Your task to perform on an android device: Clear the shopping cart on walmart. Image 0: 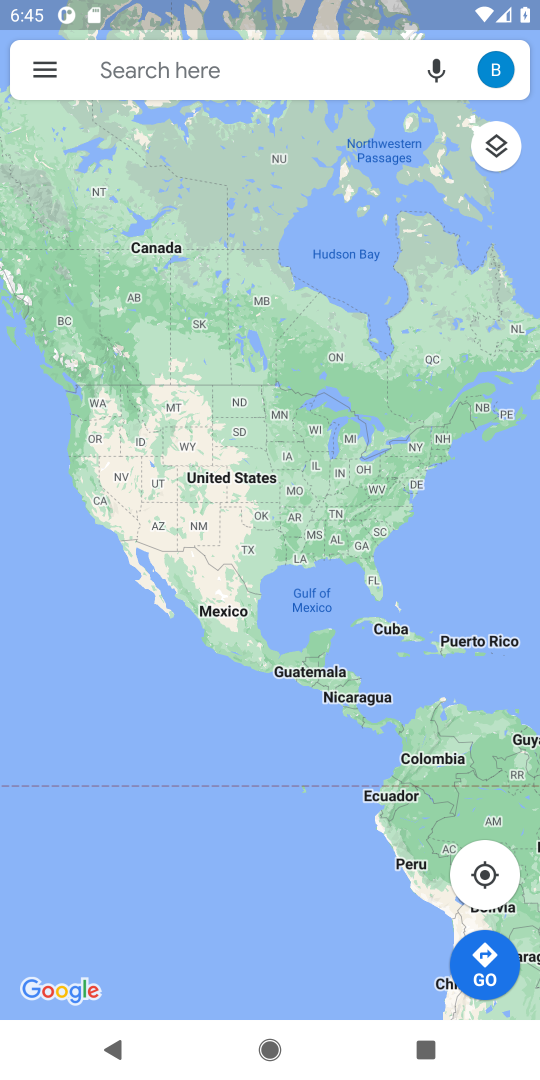
Step 0: press home button
Your task to perform on an android device: Clear the shopping cart on walmart. Image 1: 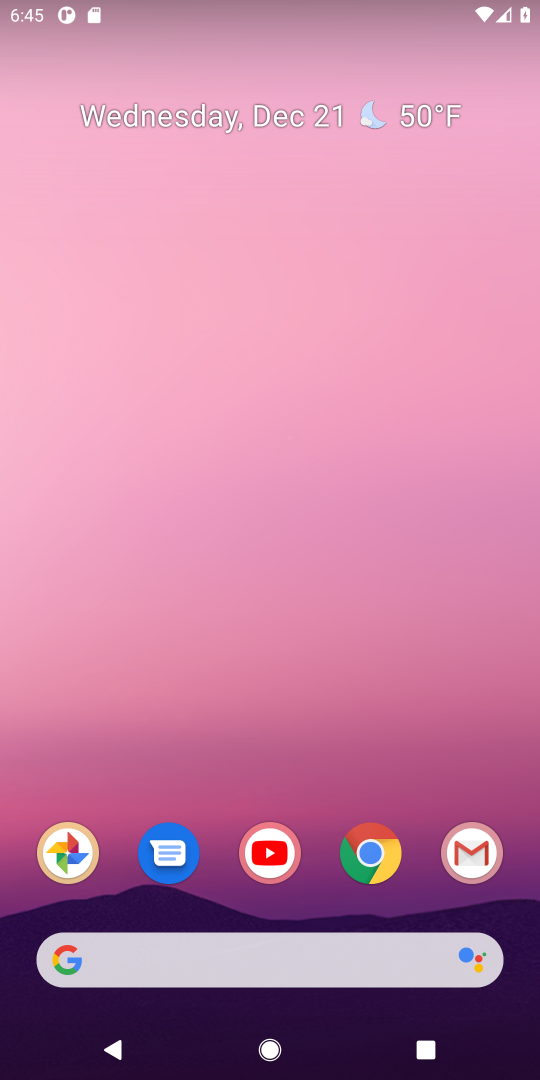
Step 1: click (359, 860)
Your task to perform on an android device: Clear the shopping cart on walmart. Image 2: 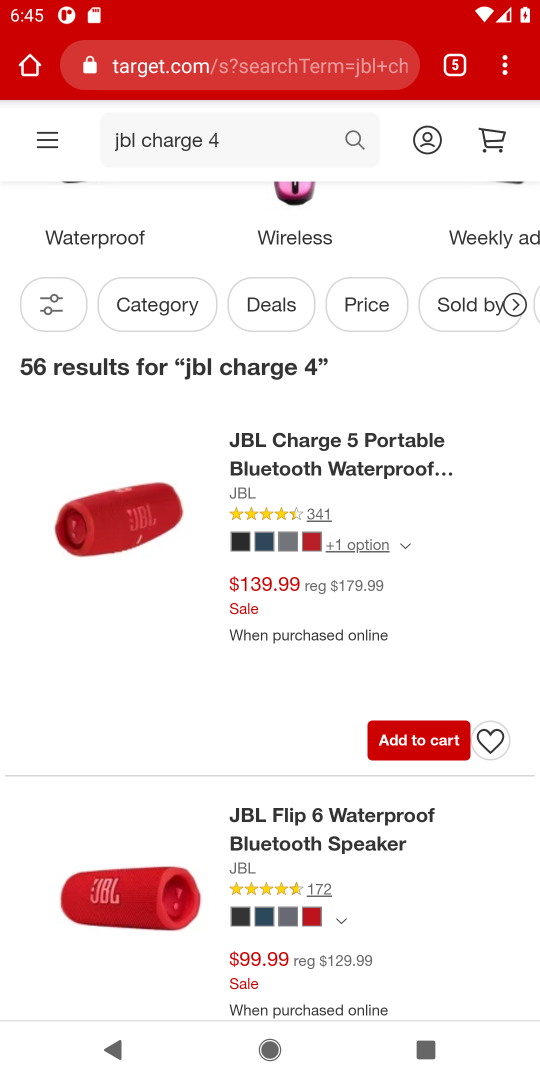
Step 2: click (451, 54)
Your task to perform on an android device: Clear the shopping cart on walmart. Image 3: 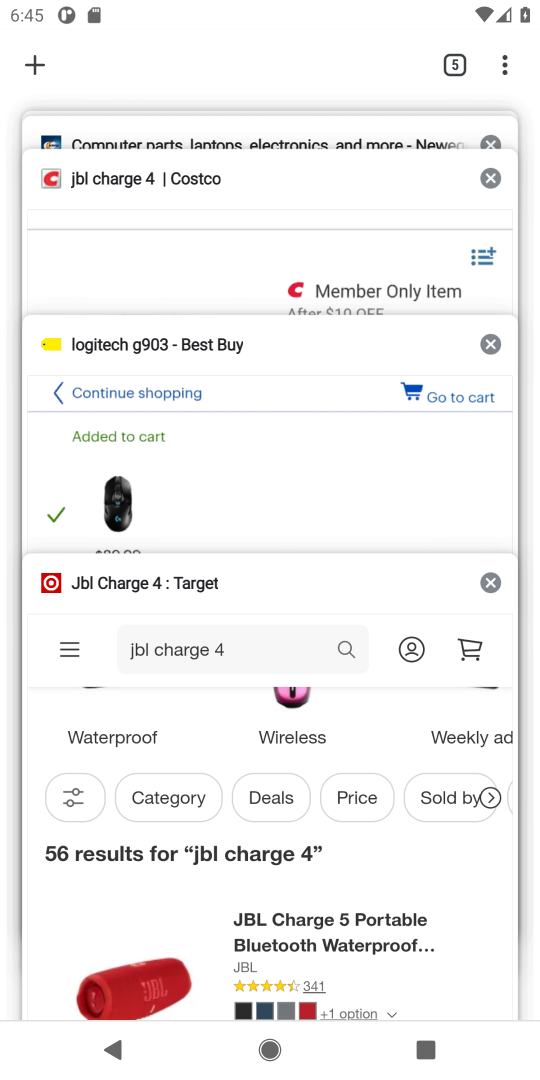
Step 3: click (33, 69)
Your task to perform on an android device: Clear the shopping cart on walmart. Image 4: 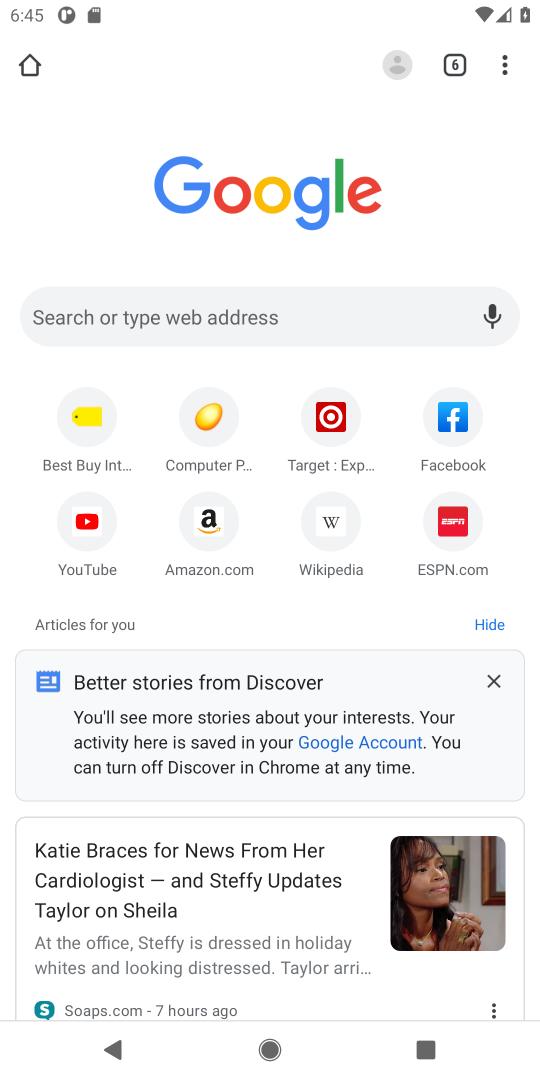
Step 4: click (220, 305)
Your task to perform on an android device: Clear the shopping cart on walmart. Image 5: 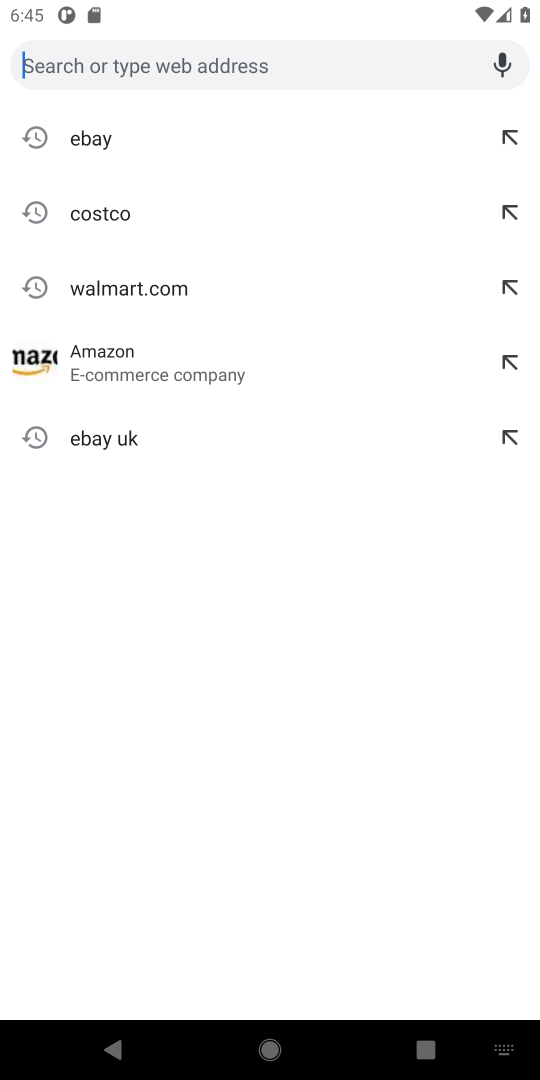
Step 5: click (128, 285)
Your task to perform on an android device: Clear the shopping cart on walmart. Image 6: 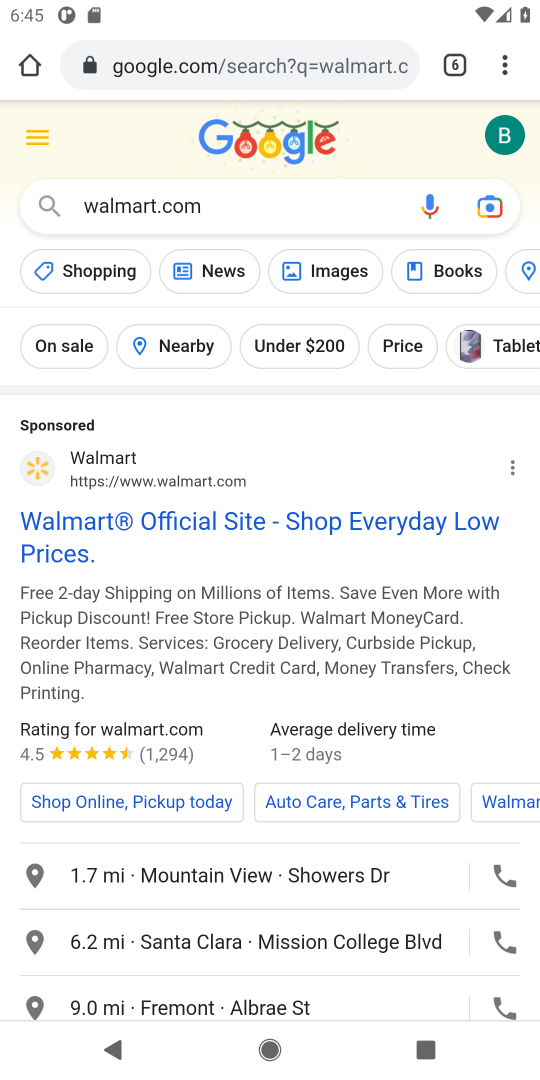
Step 6: click (219, 524)
Your task to perform on an android device: Clear the shopping cart on walmart. Image 7: 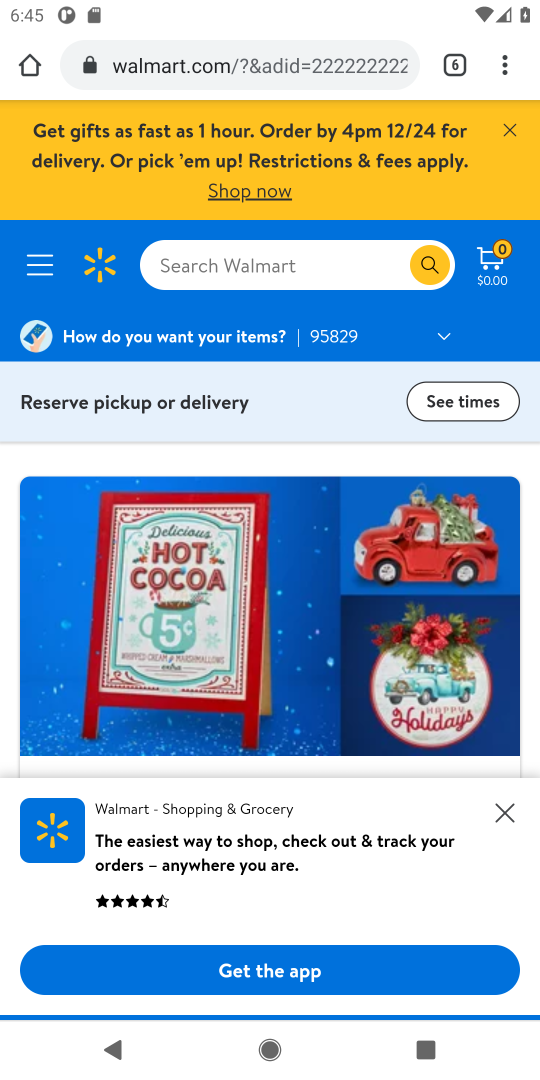
Step 7: click (509, 122)
Your task to perform on an android device: Clear the shopping cart on walmart. Image 8: 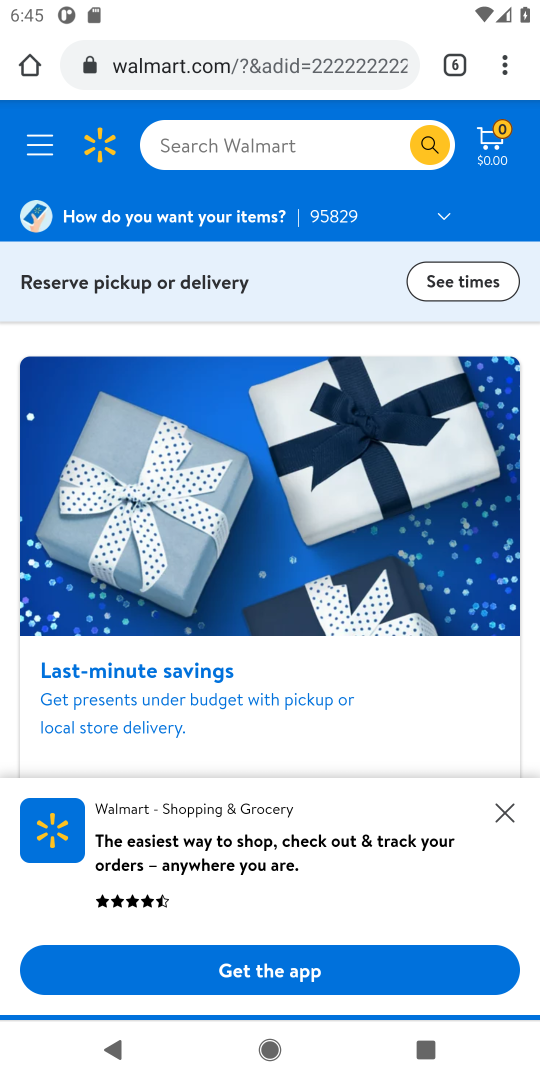
Step 8: click (499, 133)
Your task to perform on an android device: Clear the shopping cart on walmart. Image 9: 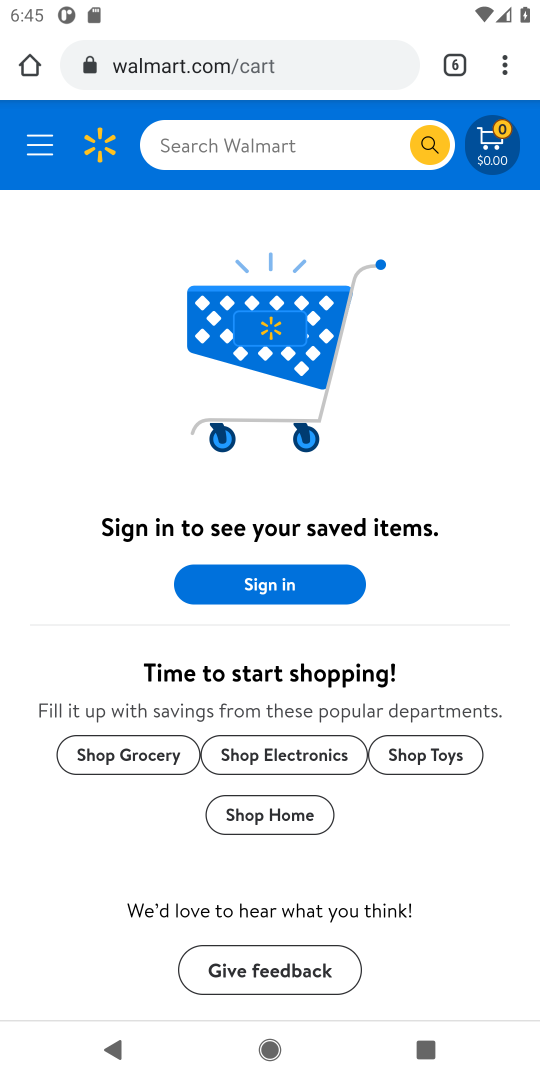
Step 9: task complete